Your task to perform on an android device: open chrome and create a bookmark for the current page Image 0: 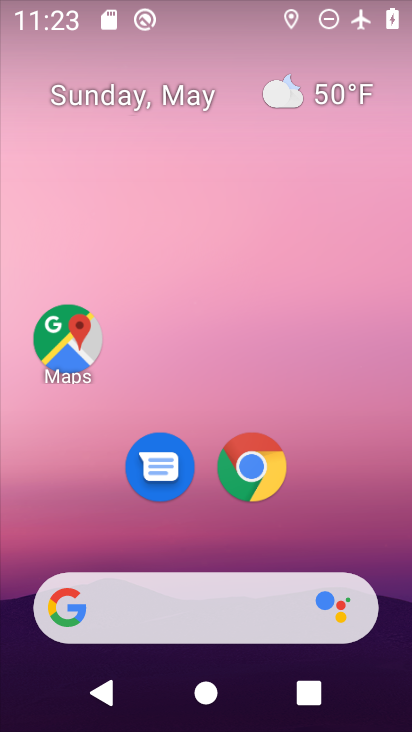
Step 0: click (260, 484)
Your task to perform on an android device: open chrome and create a bookmark for the current page Image 1: 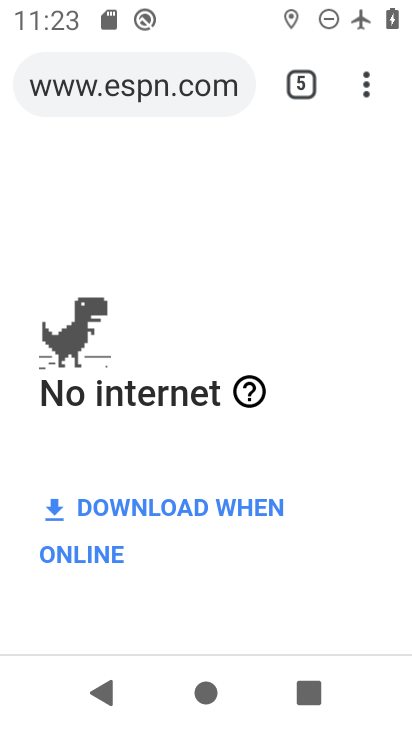
Step 1: click (289, 85)
Your task to perform on an android device: open chrome and create a bookmark for the current page Image 2: 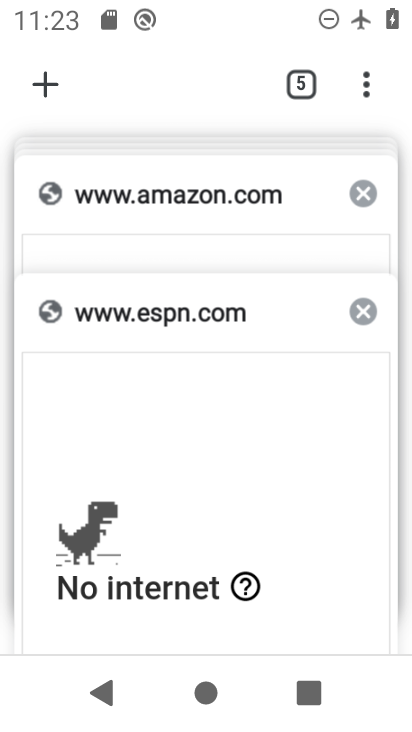
Step 2: click (305, 109)
Your task to perform on an android device: open chrome and create a bookmark for the current page Image 3: 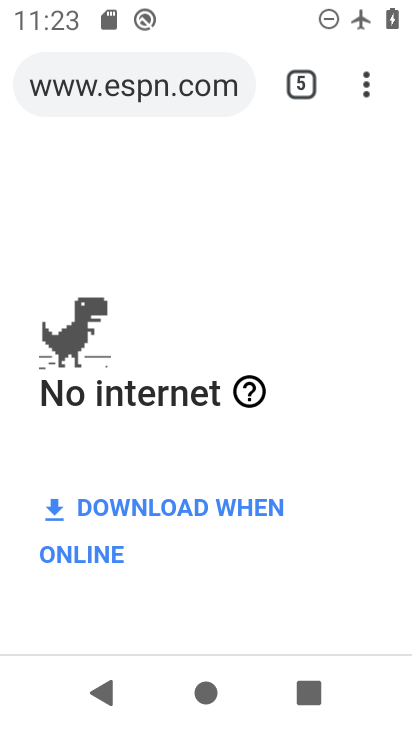
Step 3: click (298, 90)
Your task to perform on an android device: open chrome and create a bookmark for the current page Image 4: 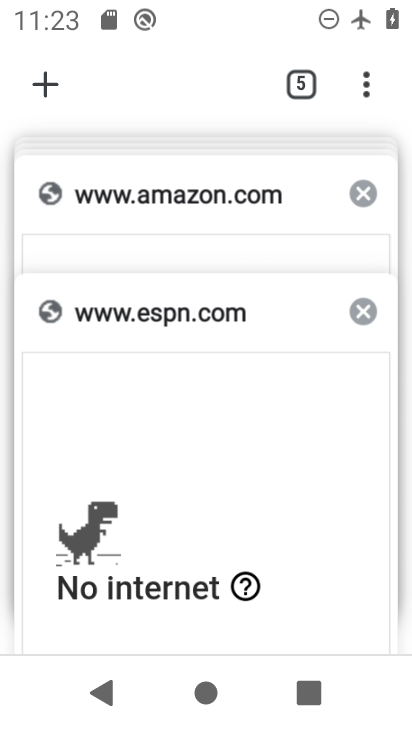
Step 4: click (52, 75)
Your task to perform on an android device: open chrome and create a bookmark for the current page Image 5: 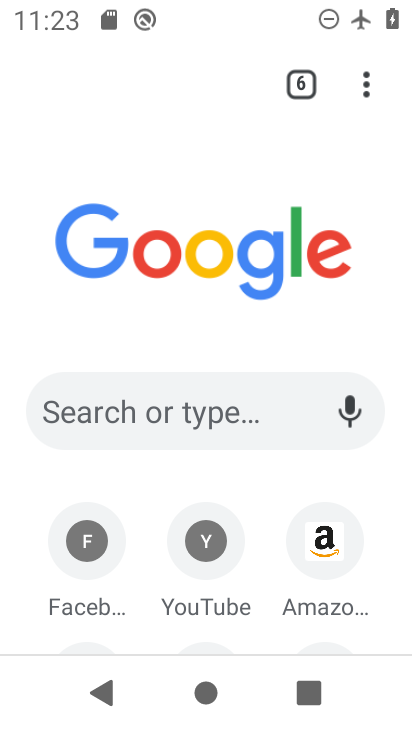
Step 5: click (191, 394)
Your task to perform on an android device: open chrome and create a bookmark for the current page Image 6: 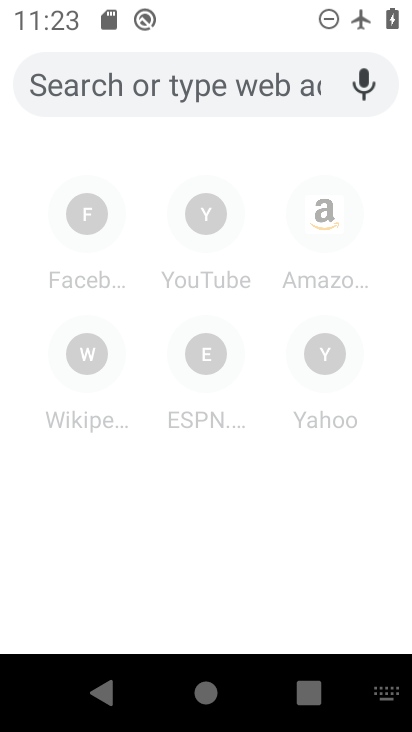
Step 6: type "hgdgc"
Your task to perform on an android device: open chrome and create a bookmark for the current page Image 7: 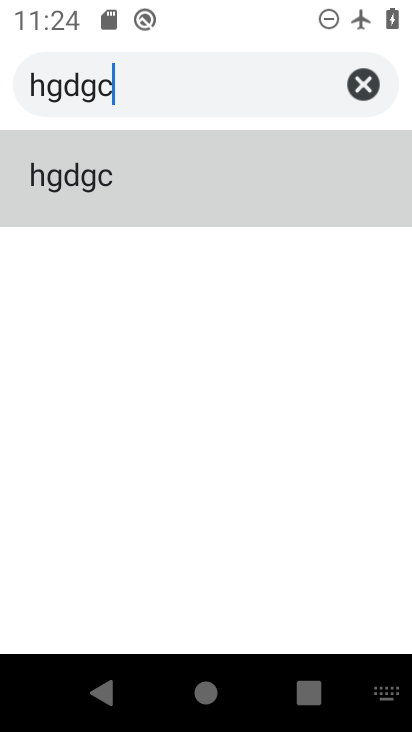
Step 7: click (127, 178)
Your task to perform on an android device: open chrome and create a bookmark for the current page Image 8: 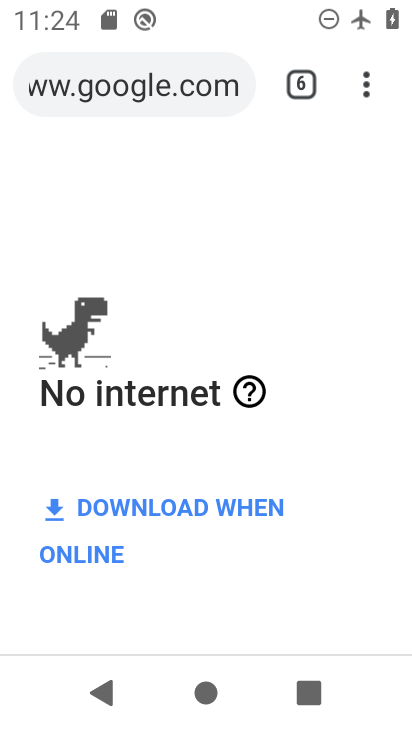
Step 8: click (367, 87)
Your task to perform on an android device: open chrome and create a bookmark for the current page Image 9: 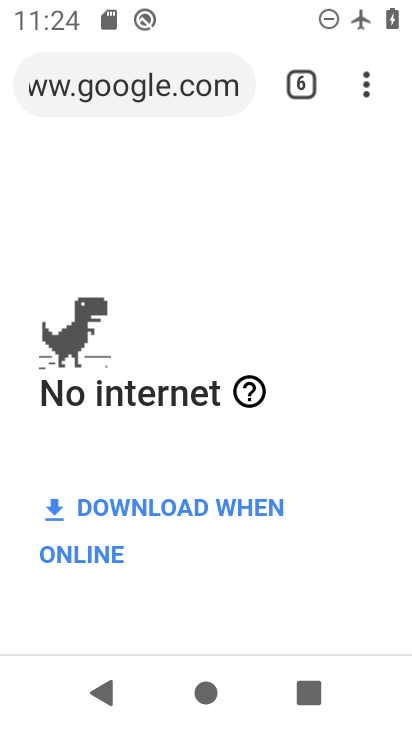
Step 9: click (368, 93)
Your task to perform on an android device: open chrome and create a bookmark for the current page Image 10: 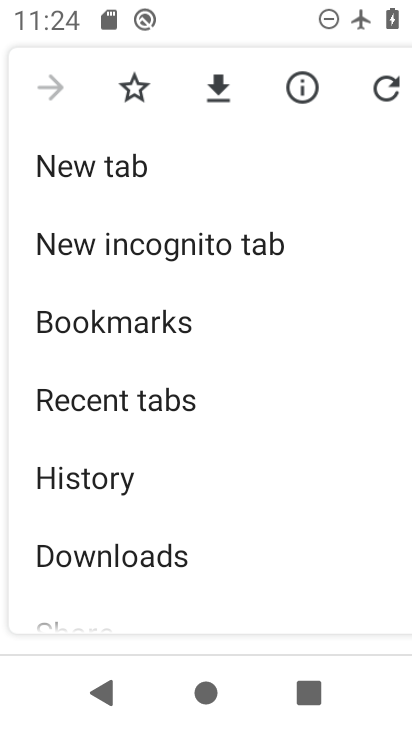
Step 10: drag from (368, 93) to (135, 89)
Your task to perform on an android device: open chrome and create a bookmark for the current page Image 11: 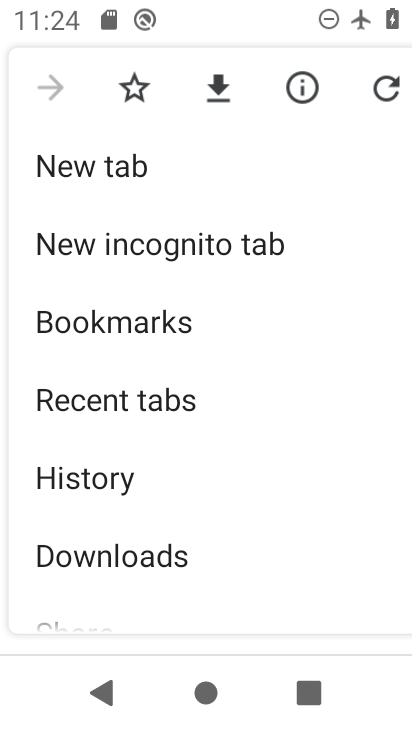
Step 11: click (135, 89)
Your task to perform on an android device: open chrome and create a bookmark for the current page Image 12: 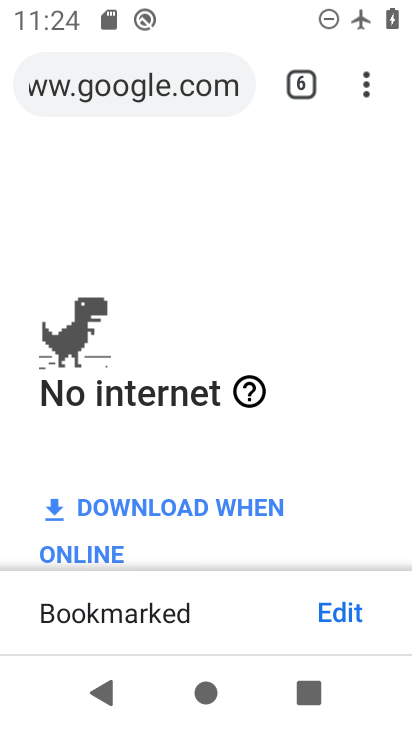
Step 12: task complete